Your task to perform on an android device: Empty the shopping cart on costco. Search for "macbook pro" on costco, select the first entry, add it to the cart, then select checkout. Image 0: 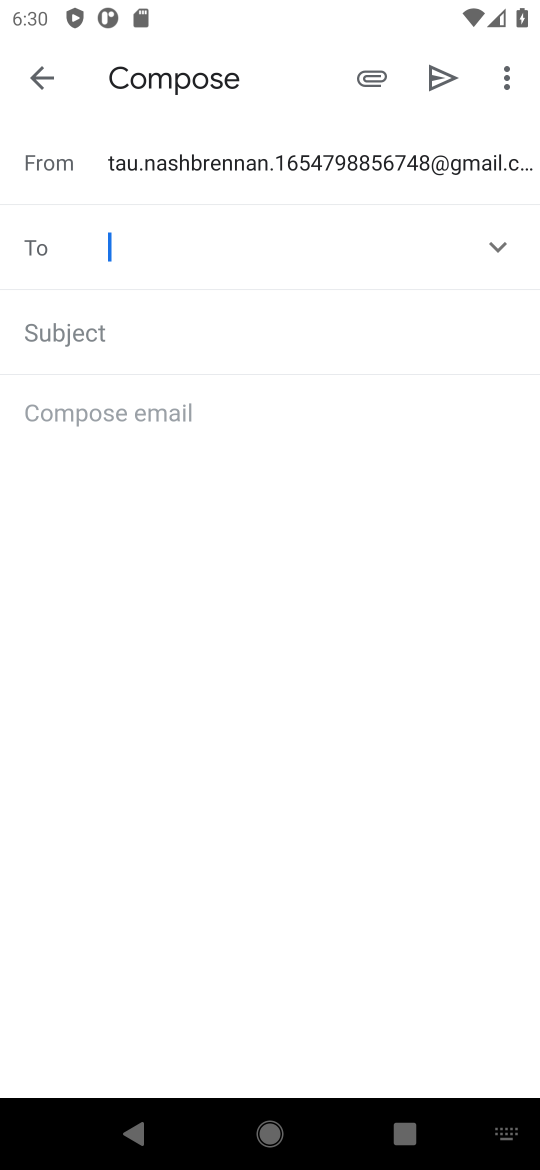
Step 0: press home button
Your task to perform on an android device: Empty the shopping cart on costco. Search for "macbook pro" on costco, select the first entry, add it to the cart, then select checkout. Image 1: 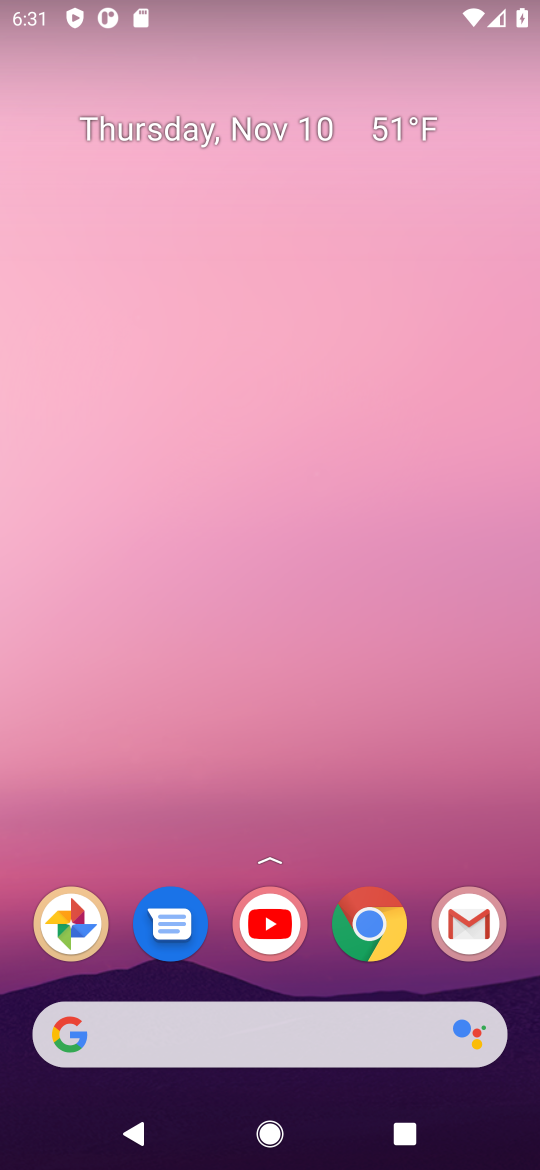
Step 1: click (369, 931)
Your task to perform on an android device: Empty the shopping cart on costco. Search for "macbook pro" on costco, select the first entry, add it to the cart, then select checkout. Image 2: 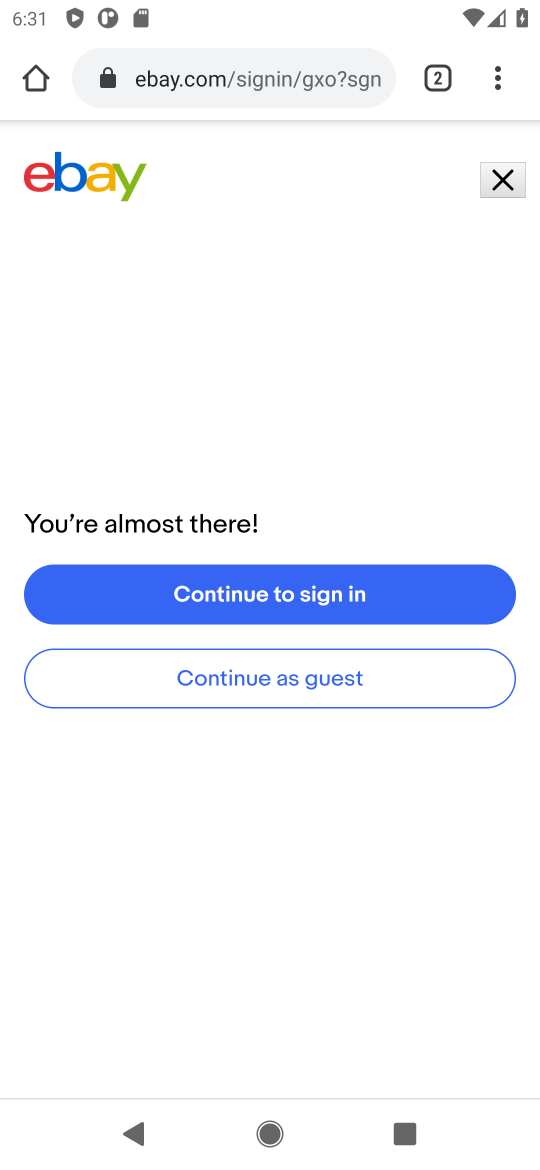
Step 2: click (216, 77)
Your task to perform on an android device: Empty the shopping cart on costco. Search for "macbook pro" on costco, select the first entry, add it to the cart, then select checkout. Image 3: 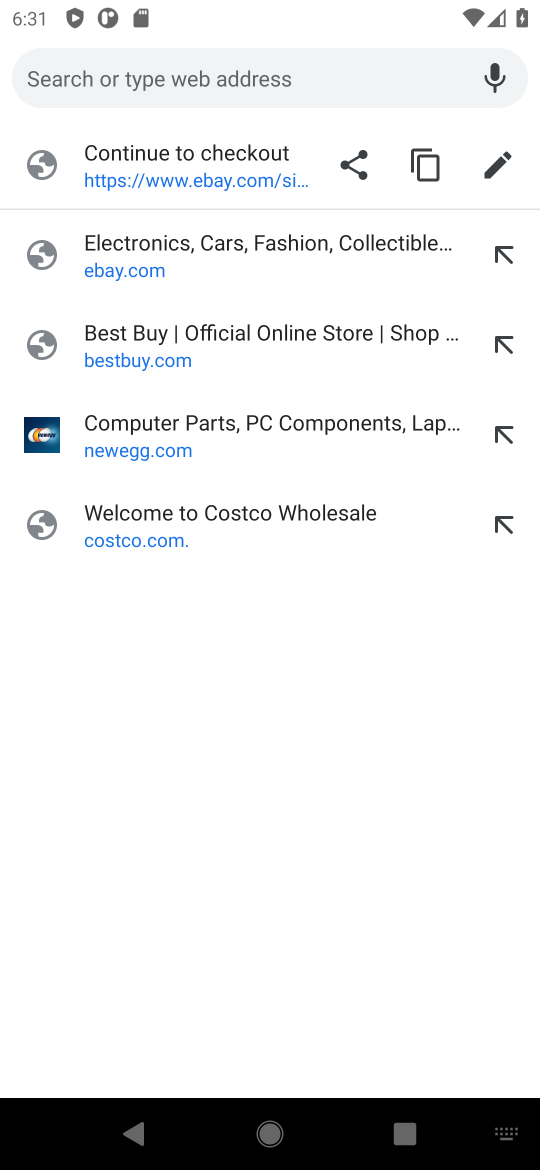
Step 3: click (125, 544)
Your task to perform on an android device: Empty the shopping cart on costco. Search for "macbook pro" on costco, select the first entry, add it to the cart, then select checkout. Image 4: 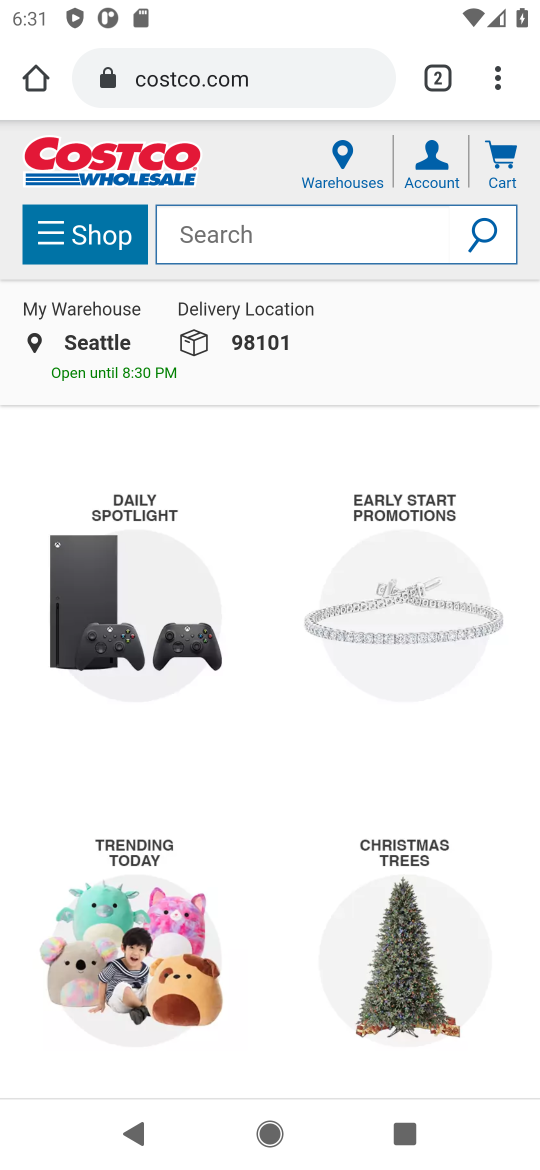
Step 4: click (501, 182)
Your task to perform on an android device: Empty the shopping cart on costco. Search for "macbook pro" on costco, select the first entry, add it to the cart, then select checkout. Image 5: 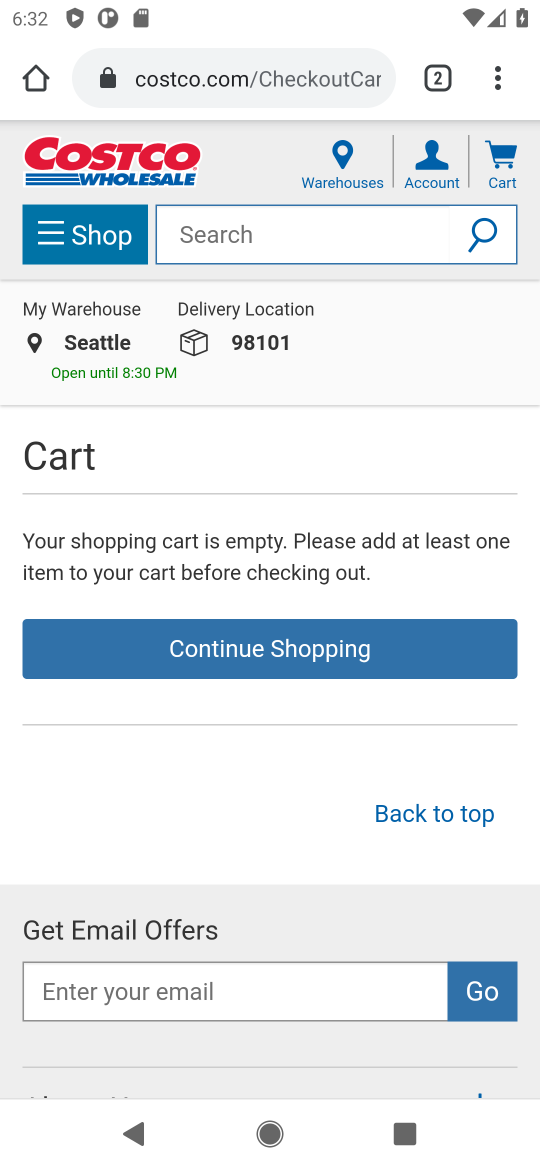
Step 5: click (271, 249)
Your task to perform on an android device: Empty the shopping cart on costco. Search for "macbook pro" on costco, select the first entry, add it to the cart, then select checkout. Image 6: 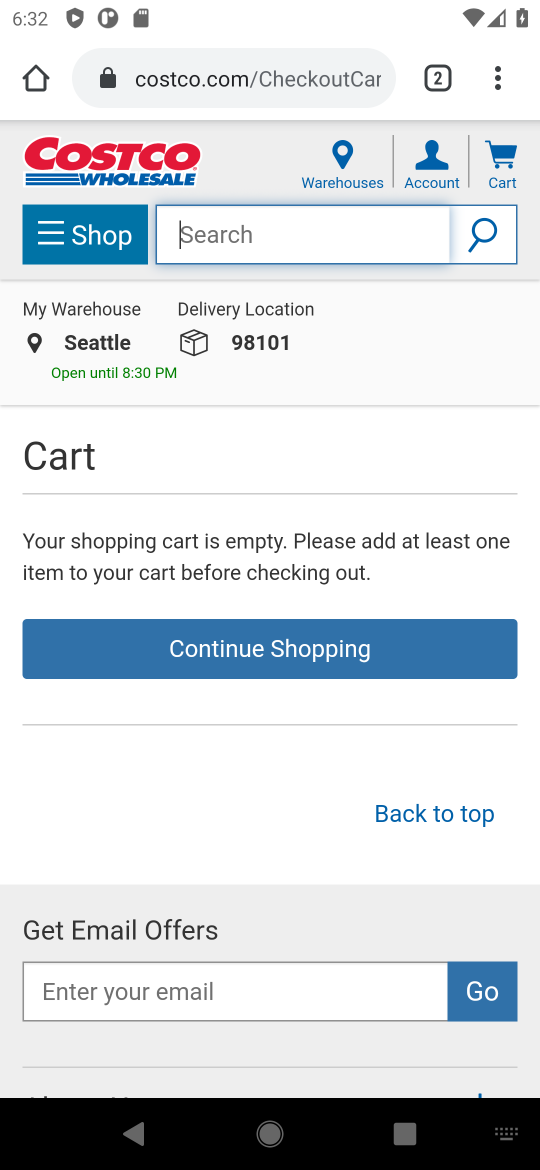
Step 6: type "macbook pro"
Your task to perform on an android device: Empty the shopping cart on costco. Search for "macbook pro" on costco, select the first entry, add it to the cart, then select checkout. Image 7: 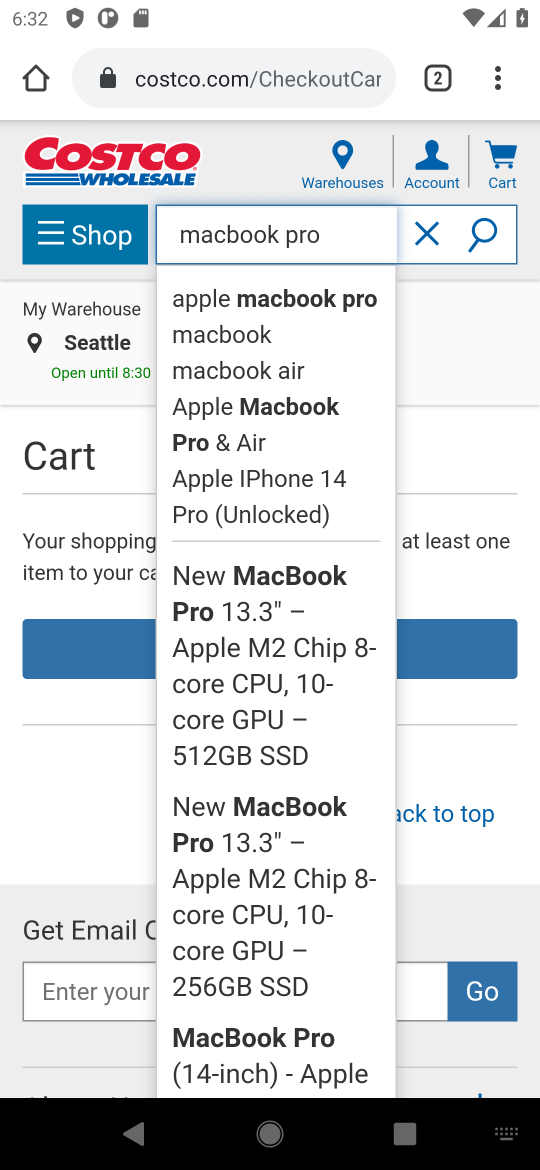
Step 7: click (488, 248)
Your task to perform on an android device: Empty the shopping cart on costco. Search for "macbook pro" on costco, select the first entry, add it to the cart, then select checkout. Image 8: 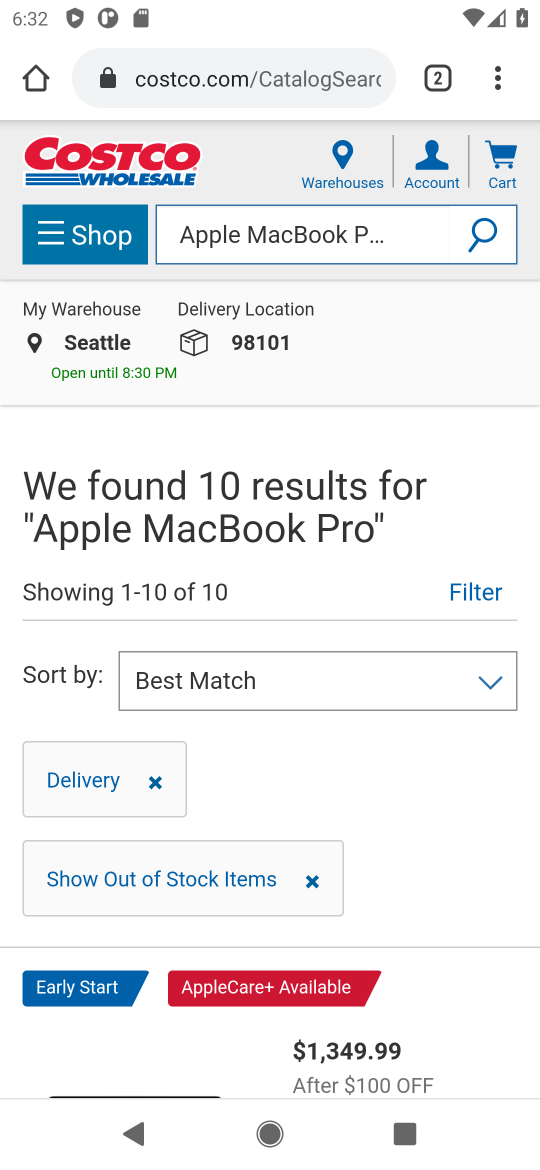
Step 8: drag from (300, 675) to (337, 275)
Your task to perform on an android device: Empty the shopping cart on costco. Search for "macbook pro" on costco, select the first entry, add it to the cart, then select checkout. Image 9: 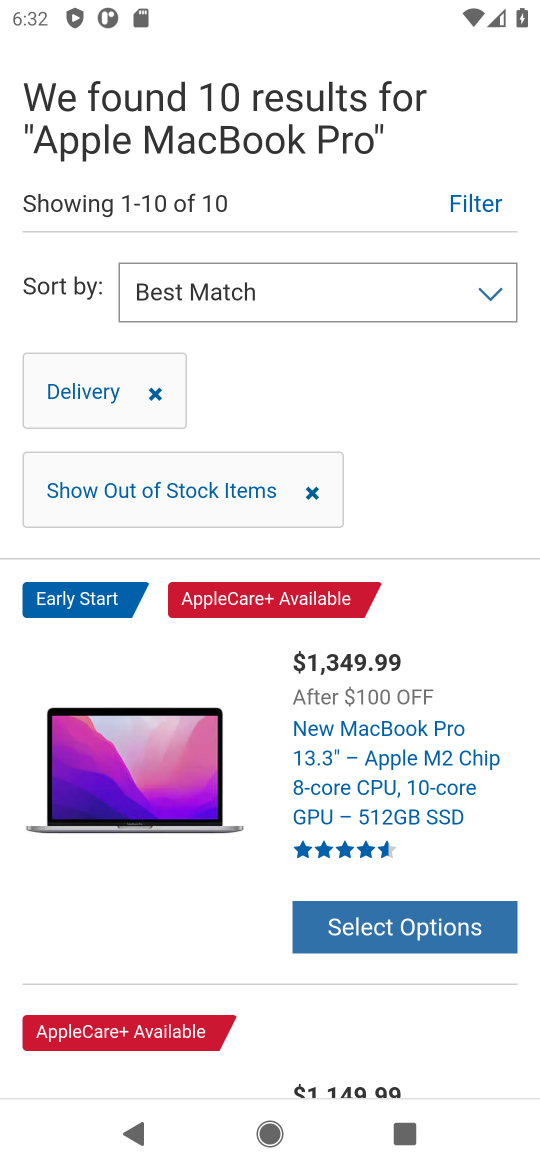
Step 9: click (173, 765)
Your task to perform on an android device: Empty the shopping cart on costco. Search for "macbook pro" on costco, select the first entry, add it to the cart, then select checkout. Image 10: 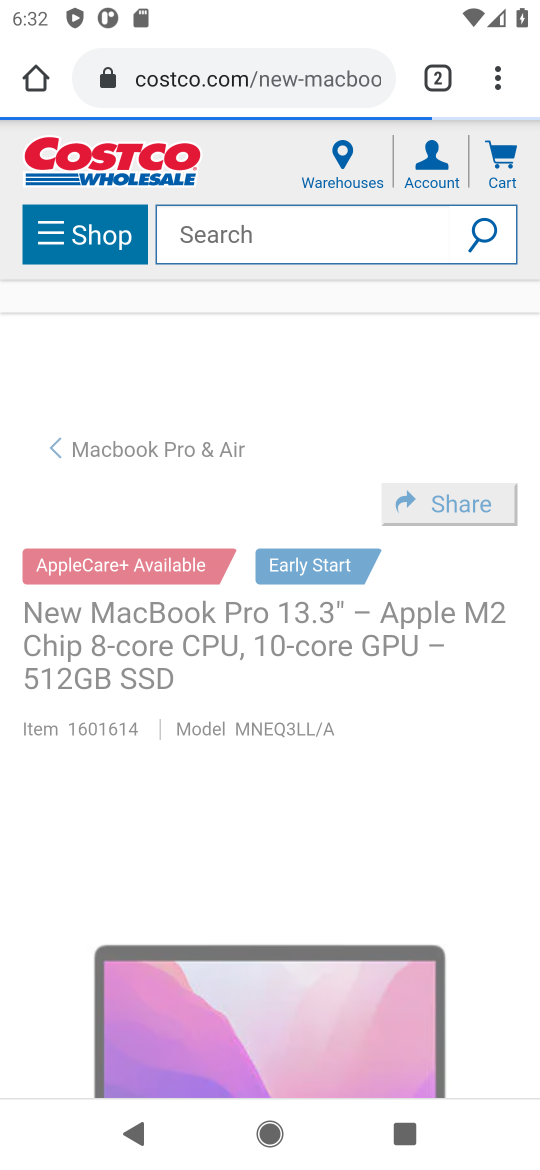
Step 10: drag from (226, 781) to (240, 389)
Your task to perform on an android device: Empty the shopping cart on costco. Search for "macbook pro" on costco, select the first entry, add it to the cart, then select checkout. Image 11: 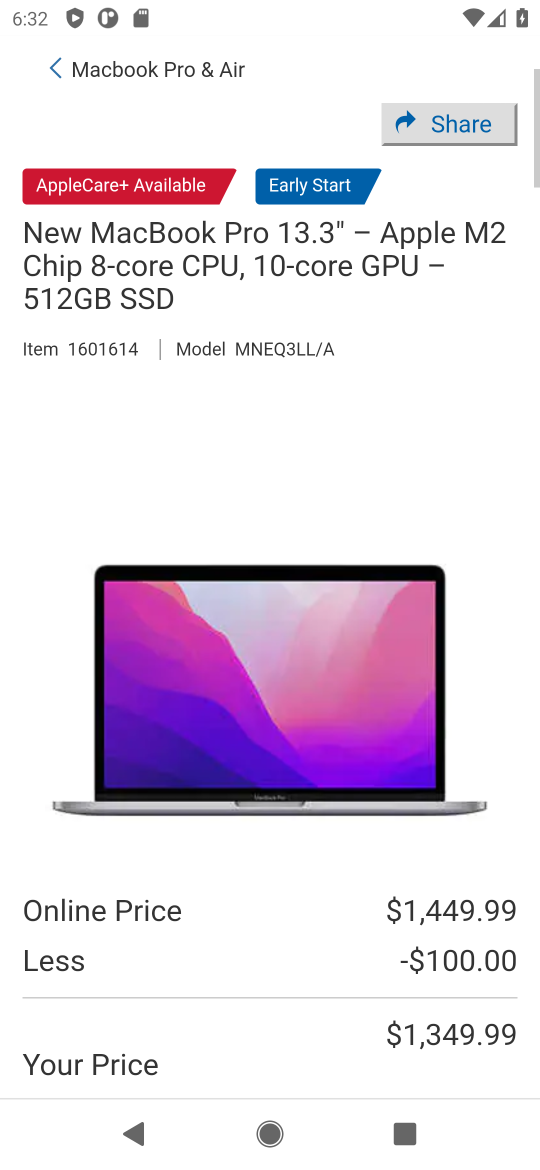
Step 11: drag from (201, 781) to (227, 374)
Your task to perform on an android device: Empty the shopping cart on costco. Search for "macbook pro" on costco, select the first entry, add it to the cart, then select checkout. Image 12: 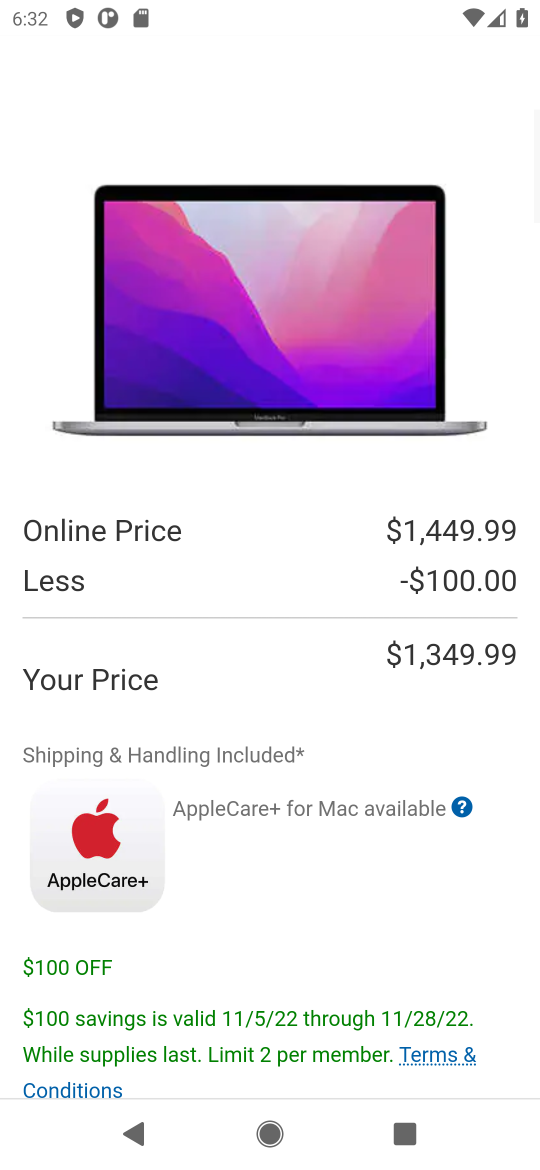
Step 12: drag from (191, 705) to (225, 290)
Your task to perform on an android device: Empty the shopping cart on costco. Search for "macbook pro" on costco, select the first entry, add it to the cart, then select checkout. Image 13: 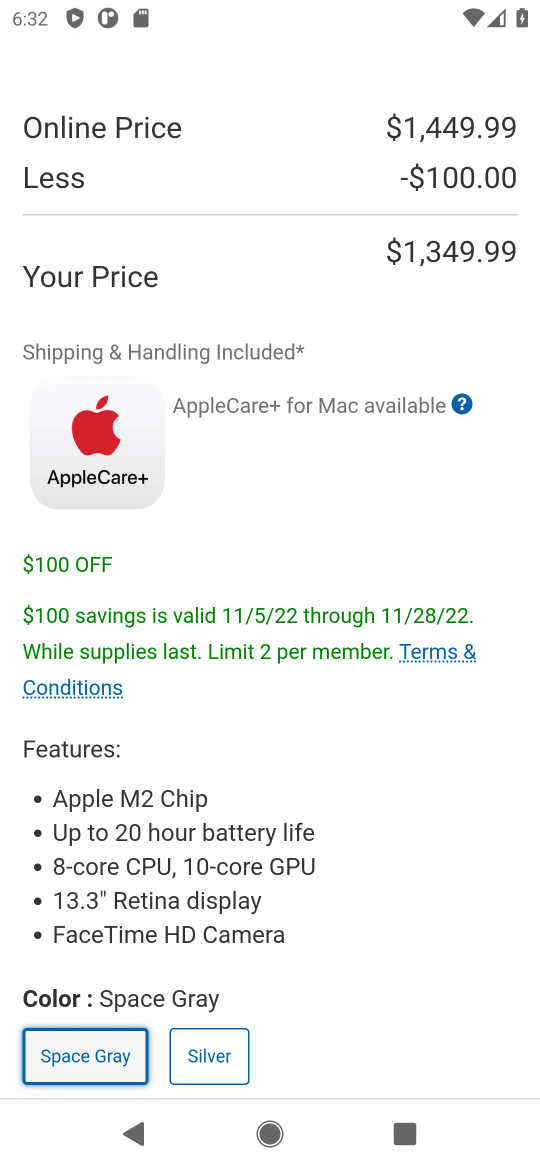
Step 13: drag from (224, 767) to (264, 349)
Your task to perform on an android device: Empty the shopping cart on costco. Search for "macbook pro" on costco, select the first entry, add it to the cart, then select checkout. Image 14: 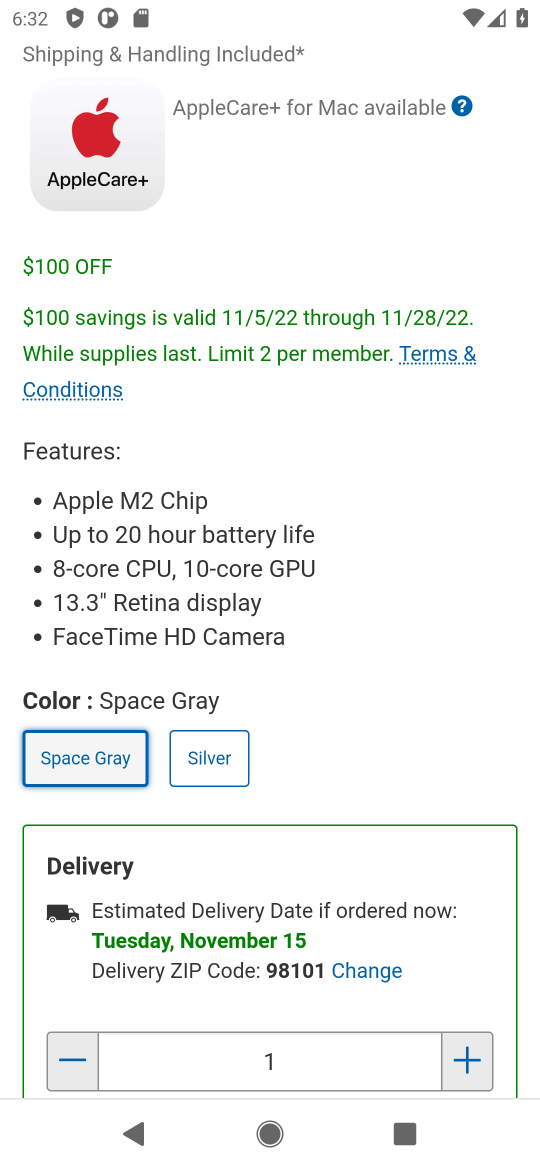
Step 14: drag from (229, 768) to (259, 362)
Your task to perform on an android device: Empty the shopping cart on costco. Search for "macbook pro" on costco, select the first entry, add it to the cart, then select checkout. Image 15: 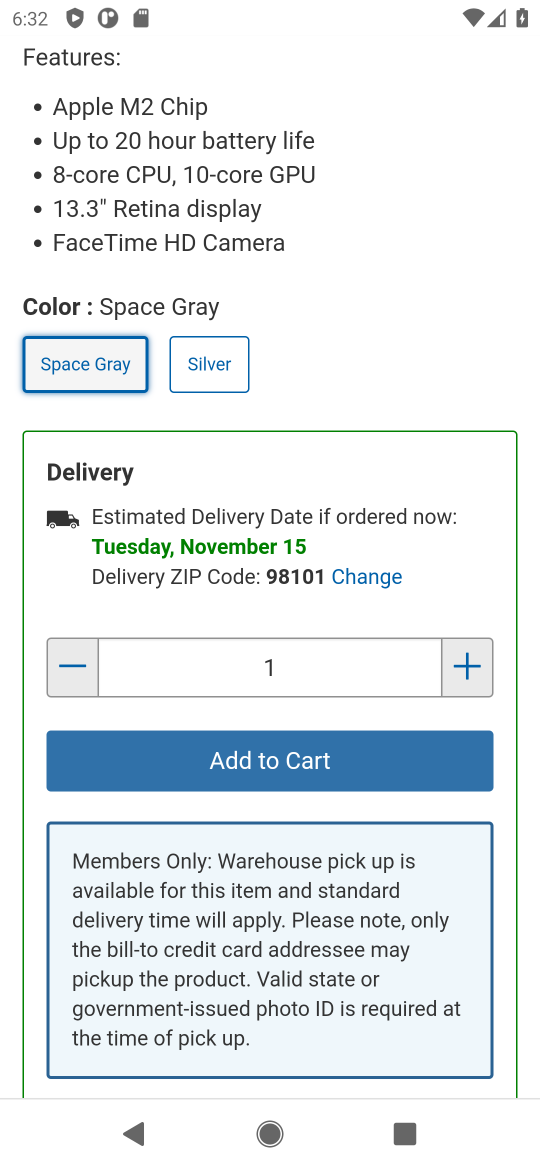
Step 15: click (231, 771)
Your task to perform on an android device: Empty the shopping cart on costco. Search for "macbook pro" on costco, select the first entry, add it to the cart, then select checkout. Image 16: 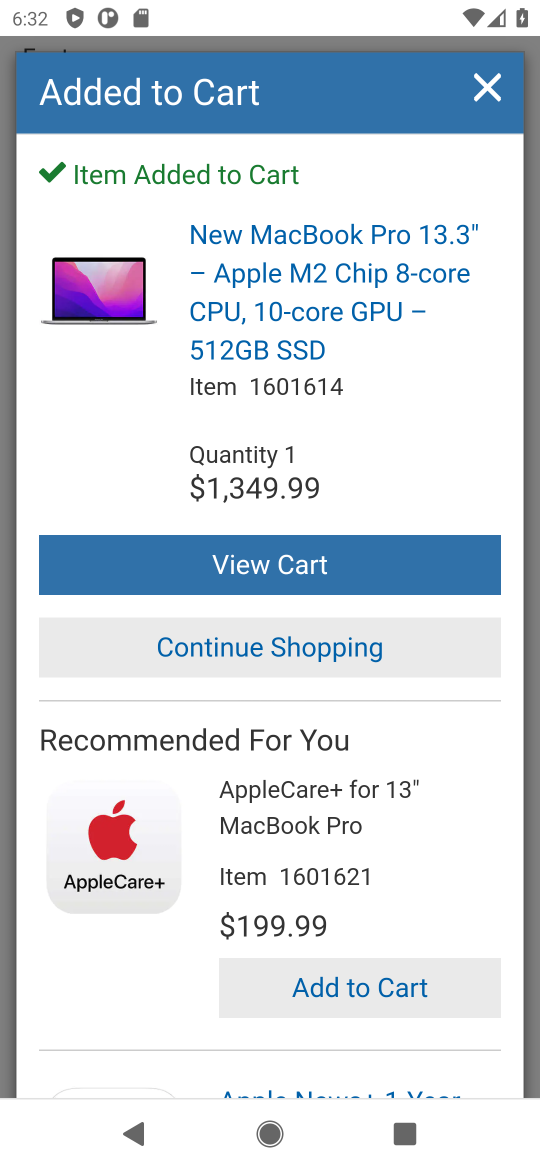
Step 16: click (248, 575)
Your task to perform on an android device: Empty the shopping cart on costco. Search for "macbook pro" on costco, select the first entry, add it to the cart, then select checkout. Image 17: 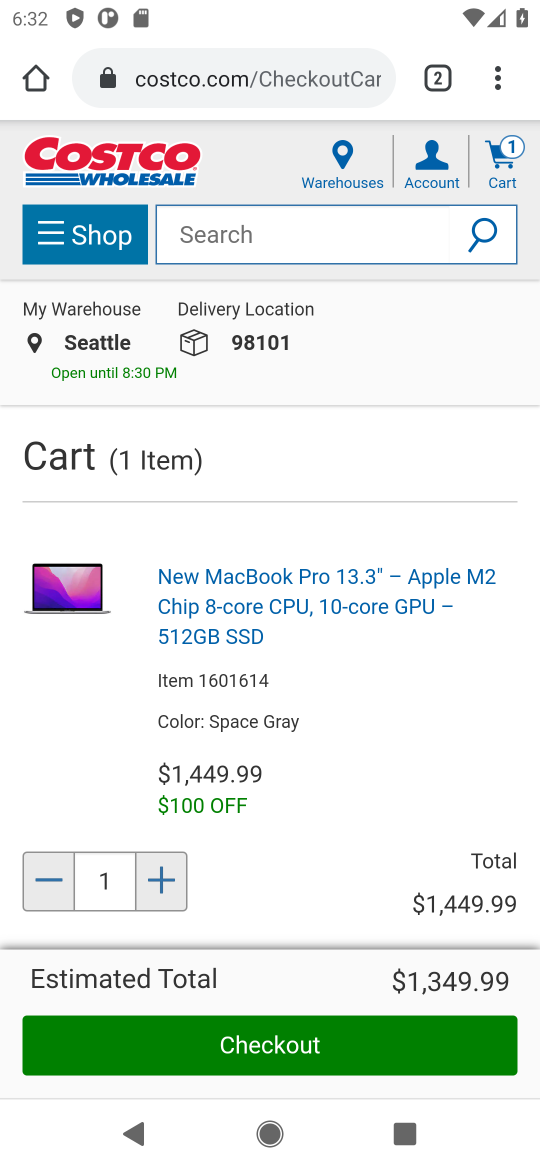
Step 17: click (262, 1056)
Your task to perform on an android device: Empty the shopping cart on costco. Search for "macbook pro" on costco, select the first entry, add it to the cart, then select checkout. Image 18: 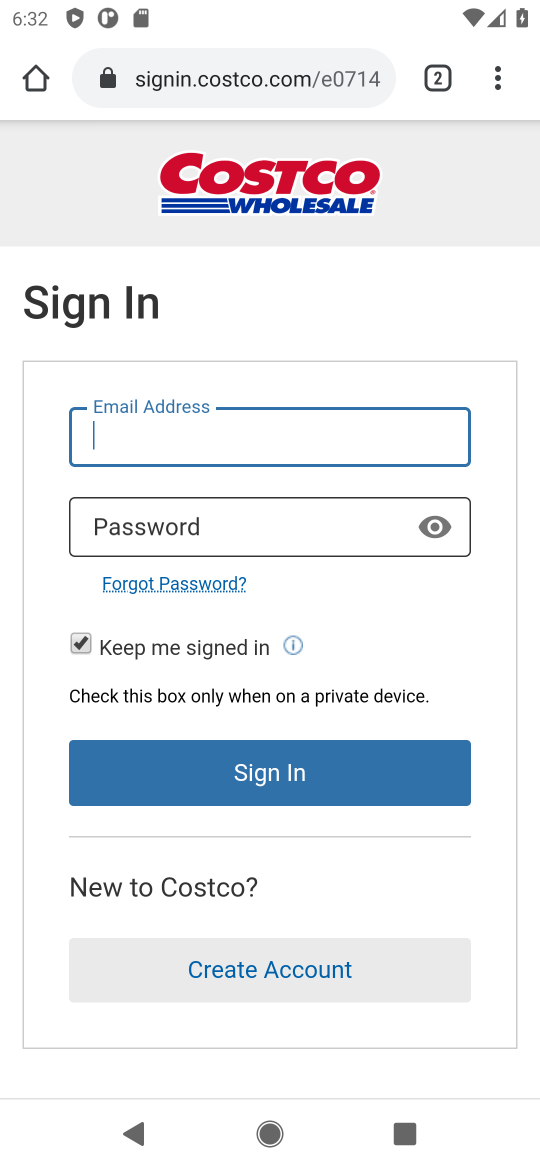
Step 18: task complete